Your task to perform on an android device: Go to network settings Image 0: 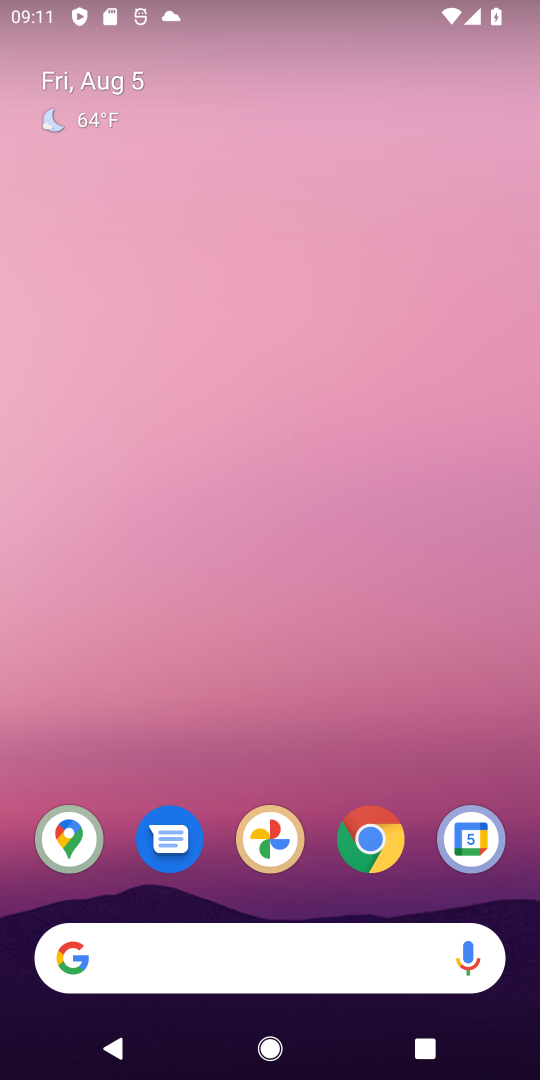
Step 0: drag from (315, 322) to (315, 112)
Your task to perform on an android device: Go to network settings Image 1: 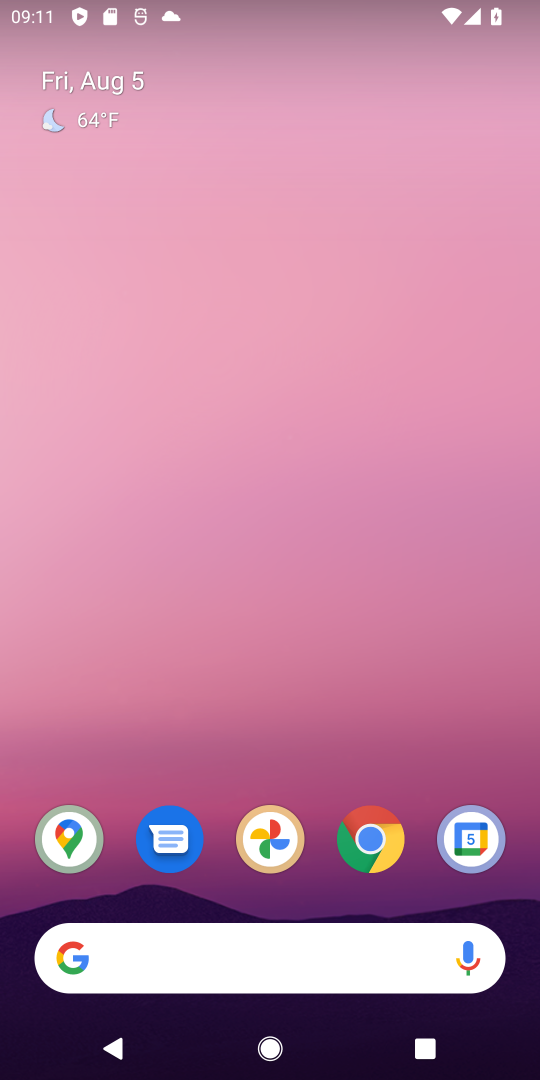
Step 1: drag from (329, 557) to (329, 74)
Your task to perform on an android device: Go to network settings Image 2: 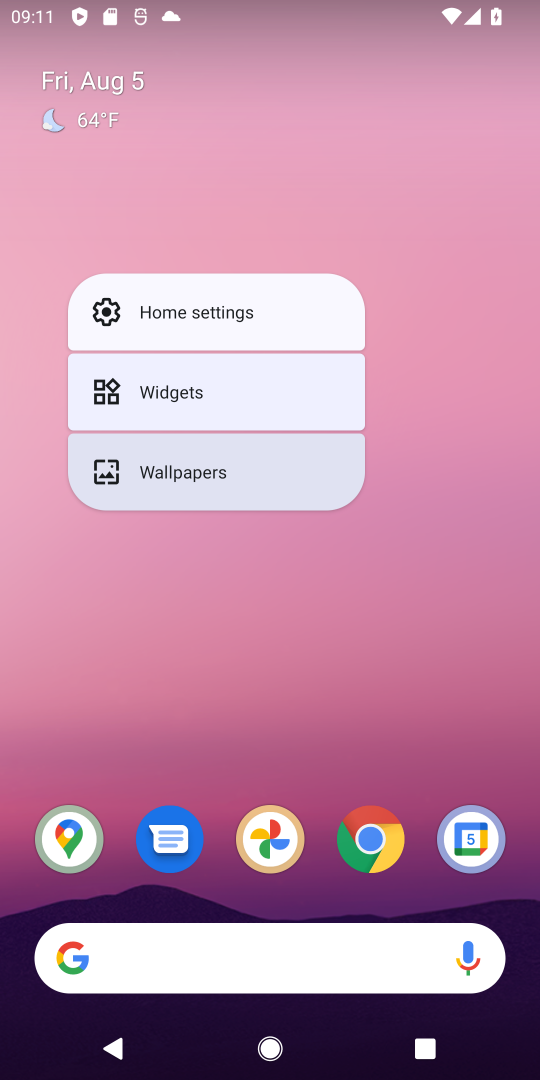
Step 2: click (407, 599)
Your task to perform on an android device: Go to network settings Image 3: 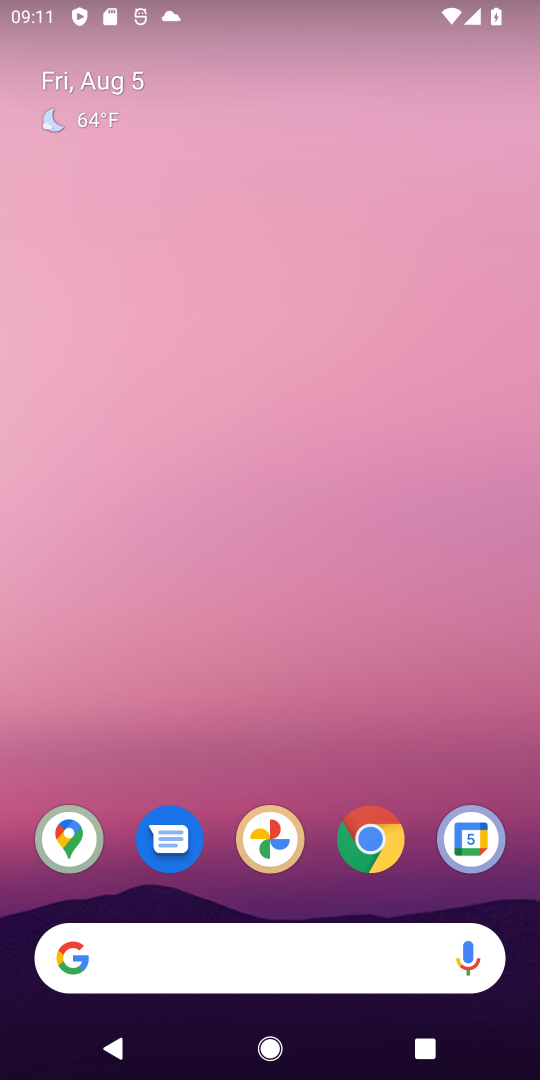
Step 3: drag from (337, 799) to (343, 189)
Your task to perform on an android device: Go to network settings Image 4: 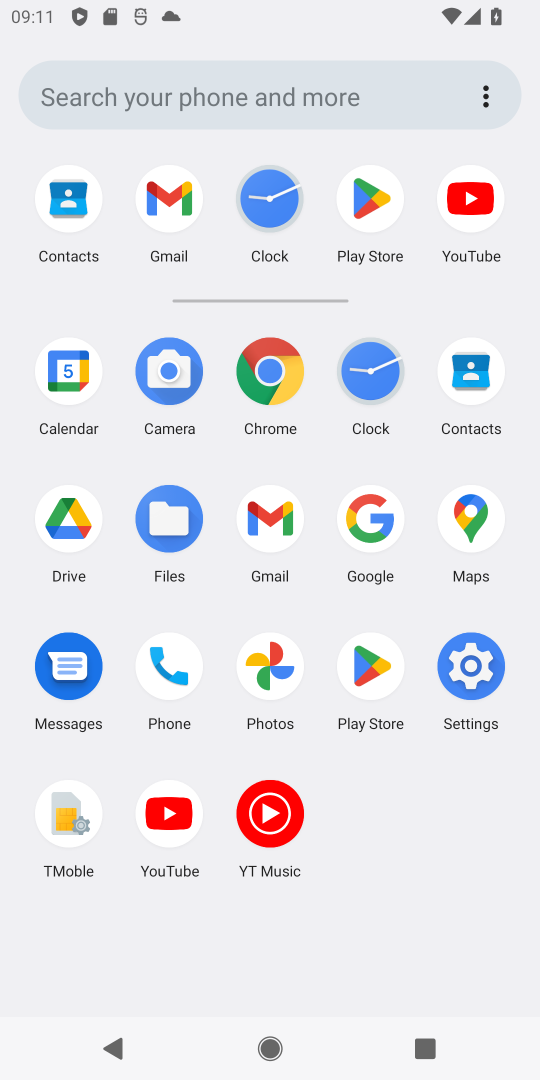
Step 4: click (467, 645)
Your task to perform on an android device: Go to network settings Image 5: 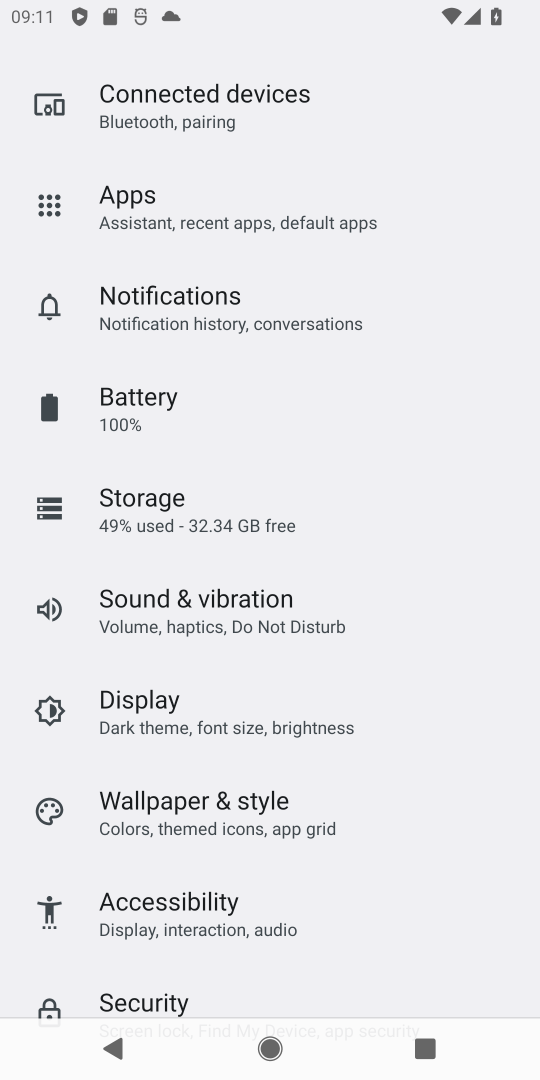
Step 5: drag from (171, 167) to (179, 731)
Your task to perform on an android device: Go to network settings Image 6: 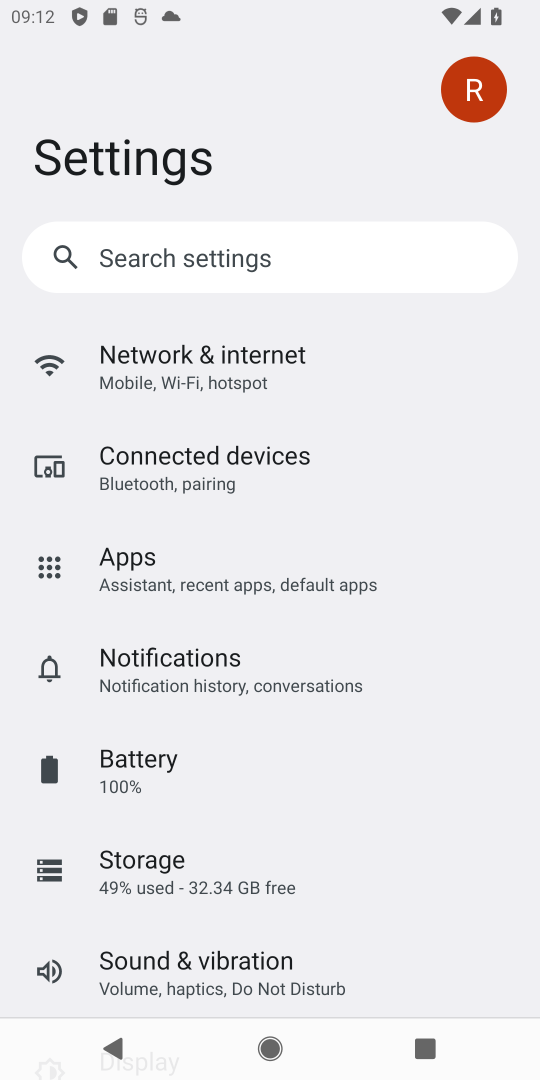
Step 6: click (146, 363)
Your task to perform on an android device: Go to network settings Image 7: 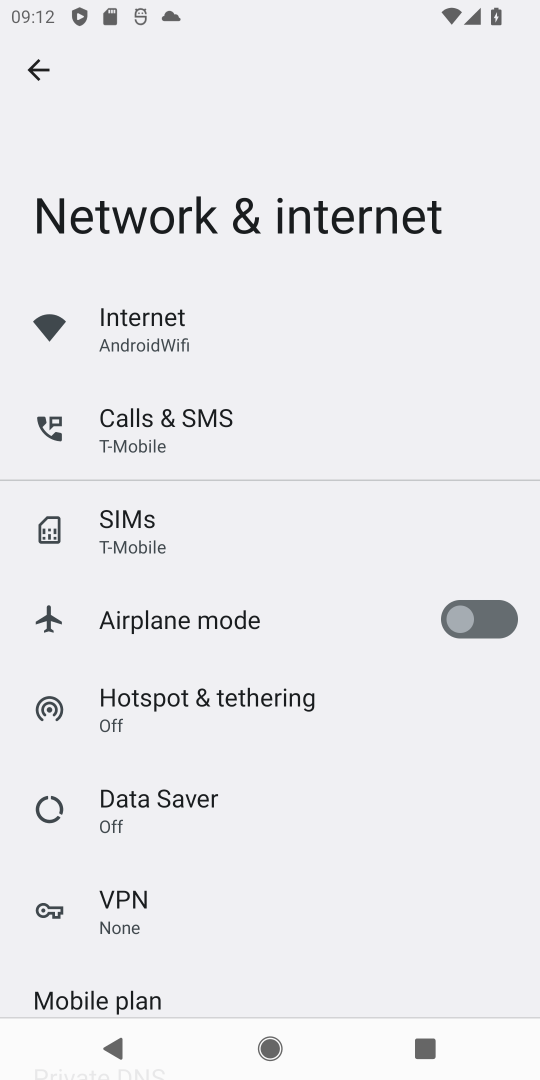
Step 7: task complete